Your task to perform on an android device: open app "Google Find My Device" (install if not already installed) Image 0: 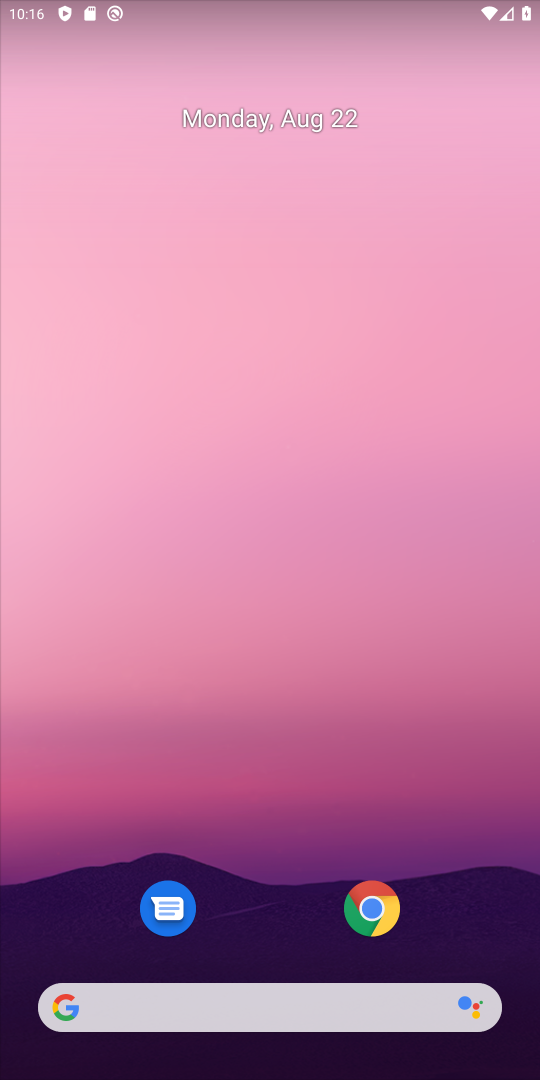
Step 0: drag from (244, 953) to (330, 168)
Your task to perform on an android device: open app "Google Find My Device" (install if not already installed) Image 1: 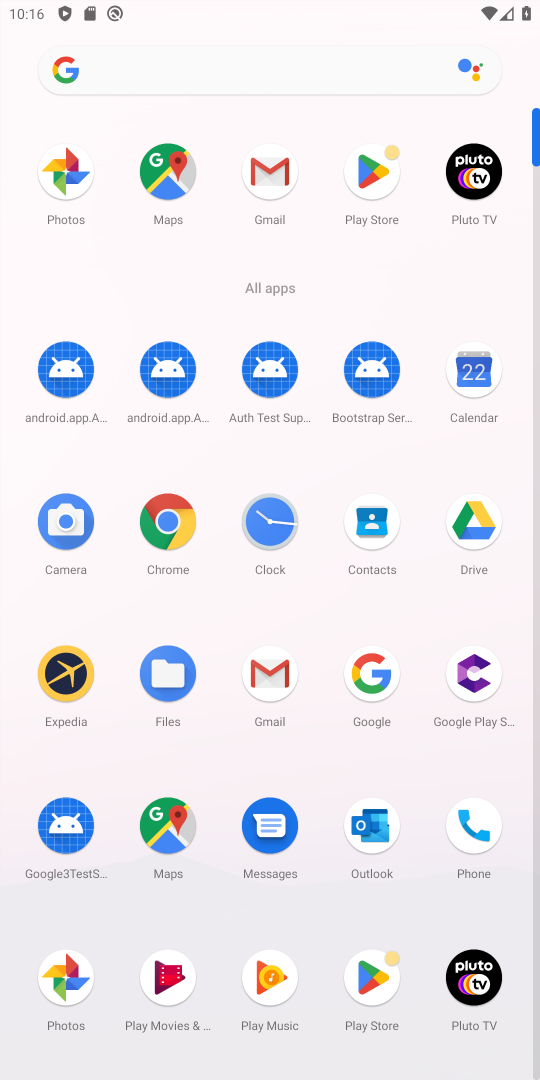
Step 1: click (341, 176)
Your task to perform on an android device: open app "Google Find My Device" (install if not already installed) Image 2: 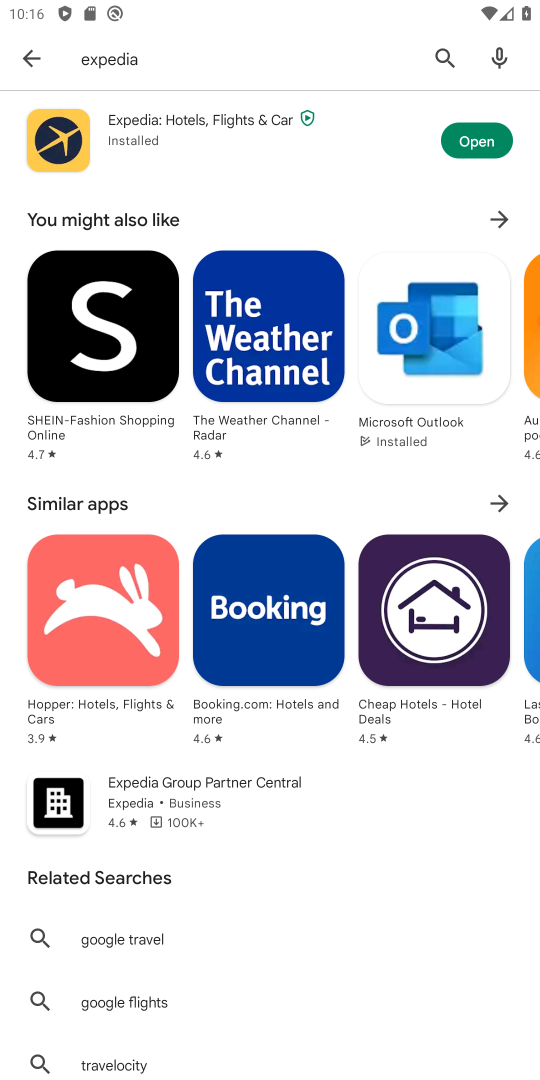
Step 2: click (424, 70)
Your task to perform on an android device: open app "Google Find My Device" (install if not already installed) Image 3: 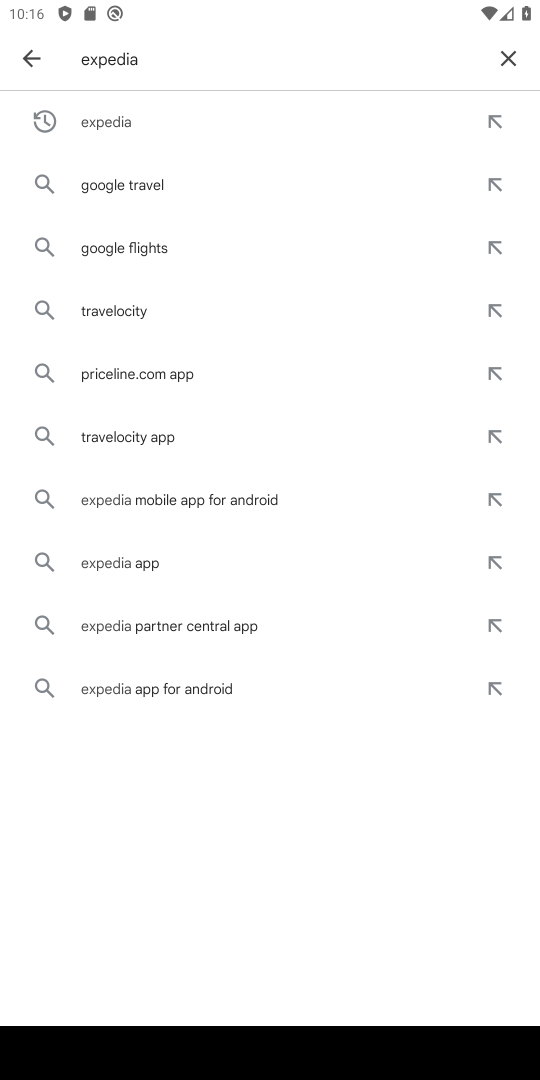
Step 3: click (503, 57)
Your task to perform on an android device: open app "Google Find My Device" (install if not already installed) Image 4: 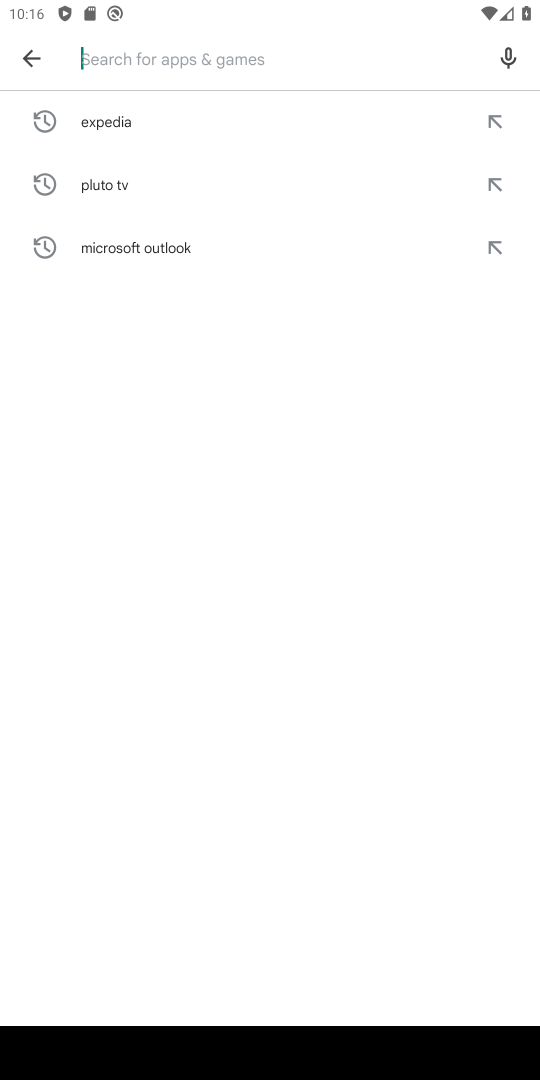
Step 4: type "google find my dives"
Your task to perform on an android device: open app "Google Find My Device" (install if not already installed) Image 5: 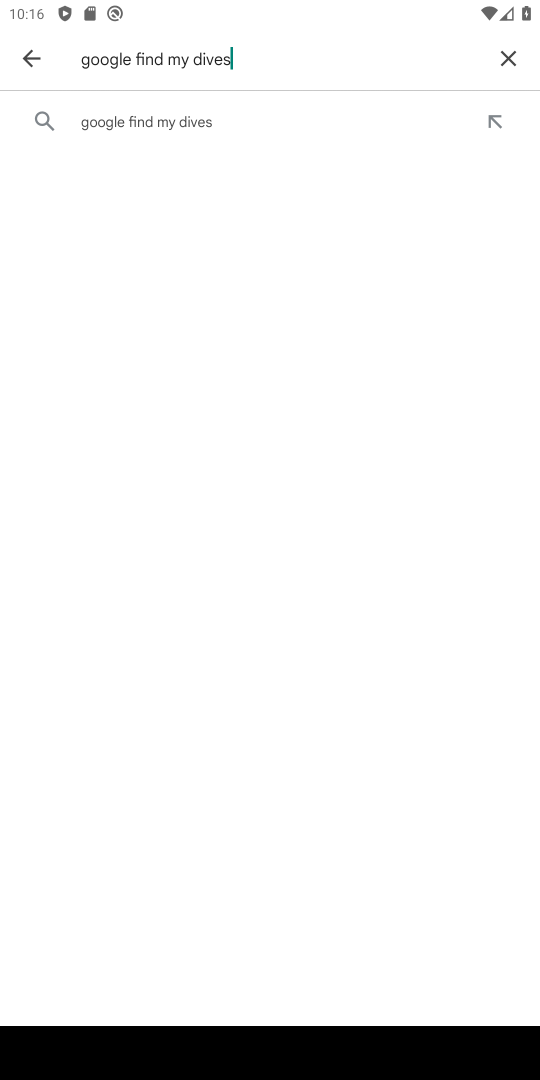
Step 5: click (255, 143)
Your task to perform on an android device: open app "Google Find My Device" (install if not already installed) Image 6: 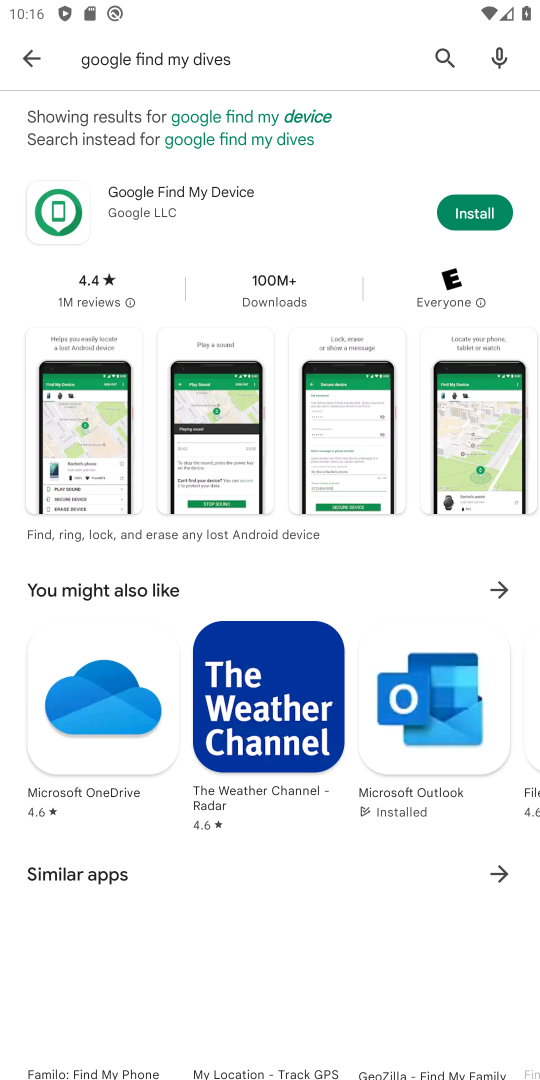
Step 6: click (471, 222)
Your task to perform on an android device: open app "Google Find My Device" (install if not already installed) Image 7: 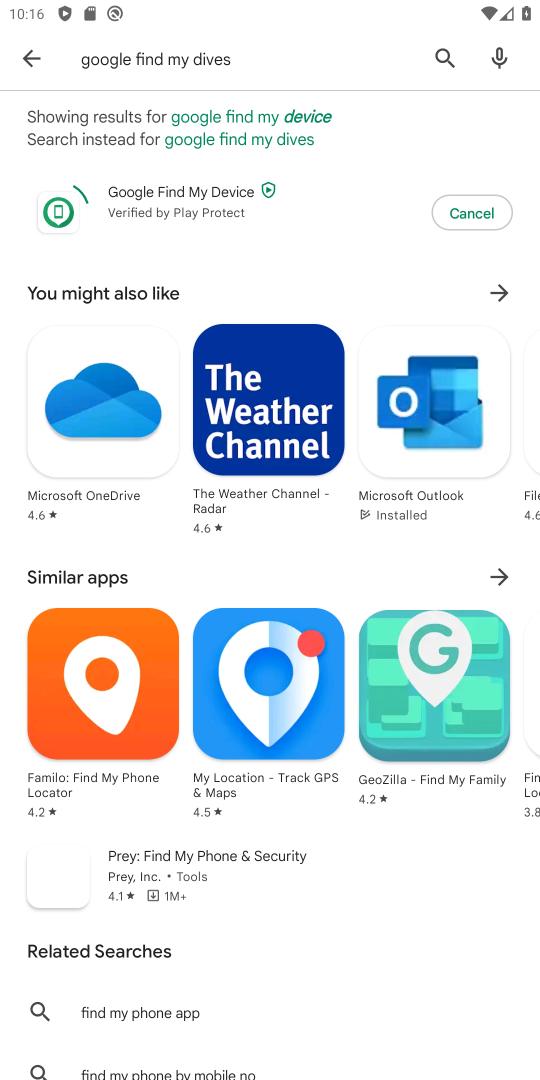
Step 7: task complete